Your task to perform on an android device: turn on the 24-hour format for clock Image 0: 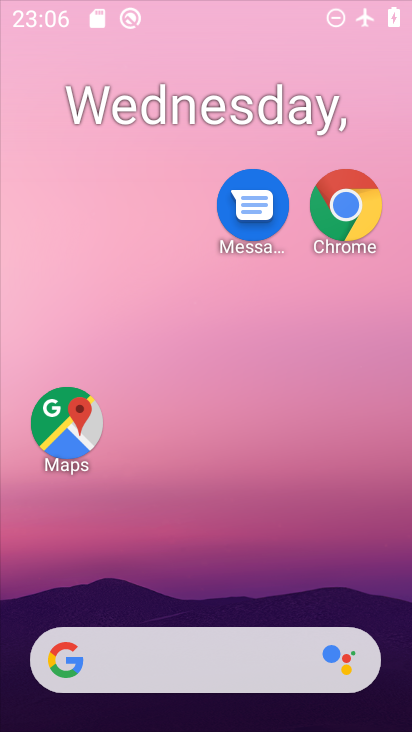
Step 0: click (301, 83)
Your task to perform on an android device: turn on the 24-hour format for clock Image 1: 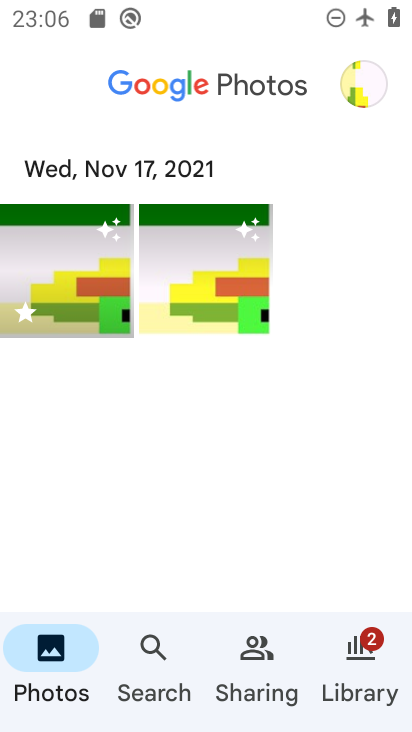
Step 1: press home button
Your task to perform on an android device: turn on the 24-hour format for clock Image 2: 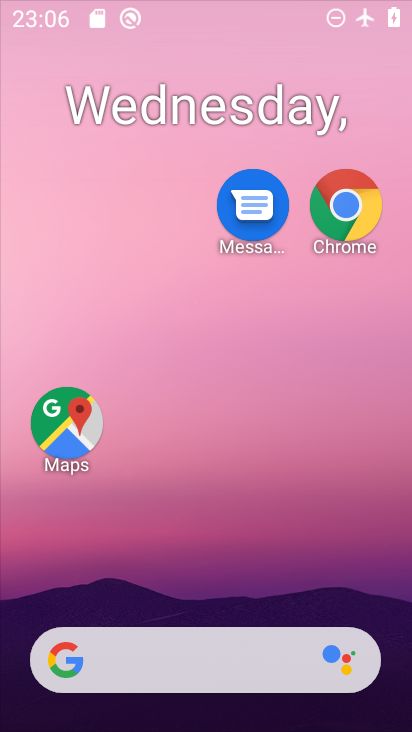
Step 2: drag from (169, 578) to (275, 1)
Your task to perform on an android device: turn on the 24-hour format for clock Image 3: 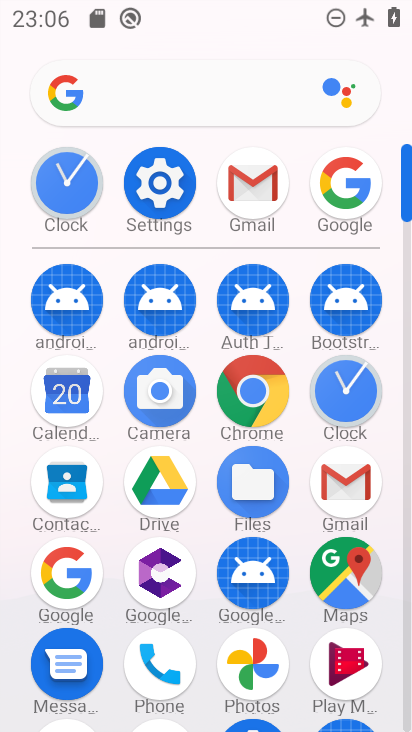
Step 3: click (350, 372)
Your task to perform on an android device: turn on the 24-hour format for clock Image 4: 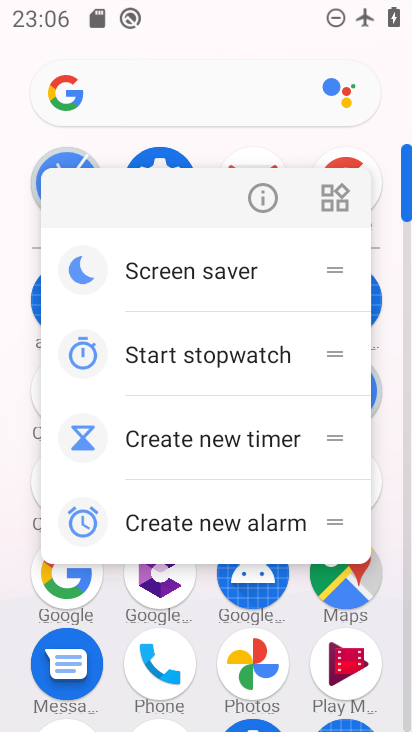
Step 4: click (260, 187)
Your task to perform on an android device: turn on the 24-hour format for clock Image 5: 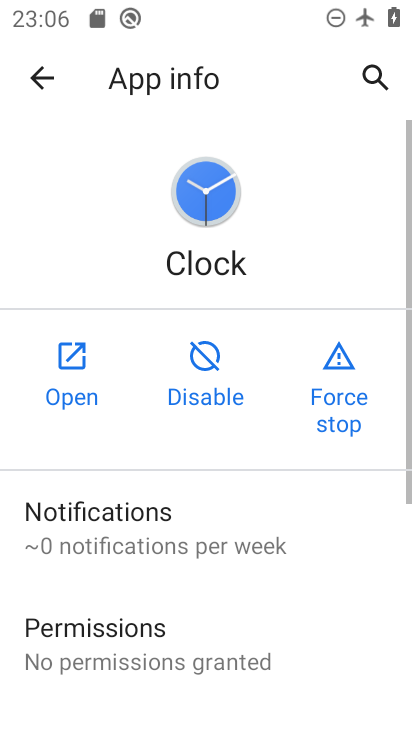
Step 5: click (76, 376)
Your task to perform on an android device: turn on the 24-hour format for clock Image 6: 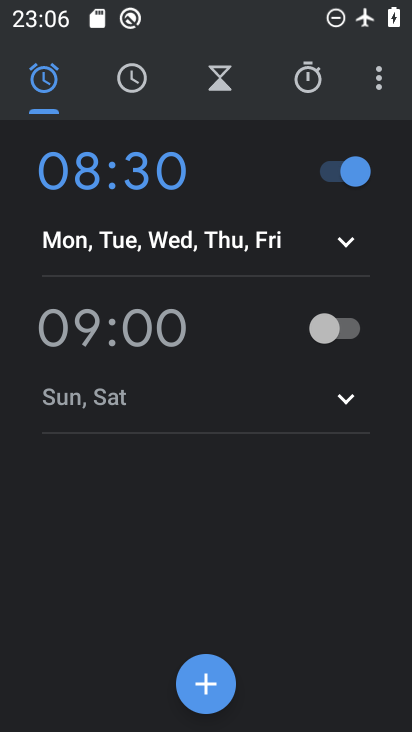
Step 6: click (373, 90)
Your task to perform on an android device: turn on the 24-hour format for clock Image 7: 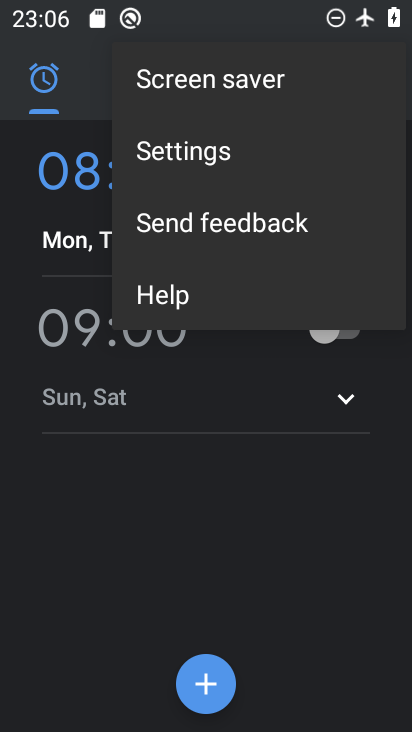
Step 7: click (225, 168)
Your task to perform on an android device: turn on the 24-hour format for clock Image 8: 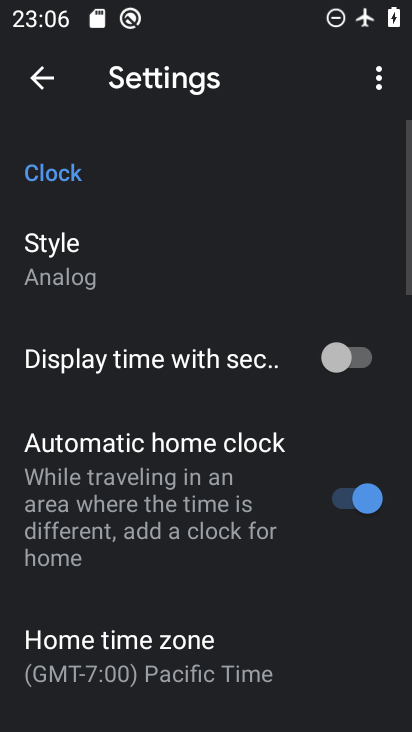
Step 8: drag from (222, 554) to (279, 175)
Your task to perform on an android device: turn on the 24-hour format for clock Image 9: 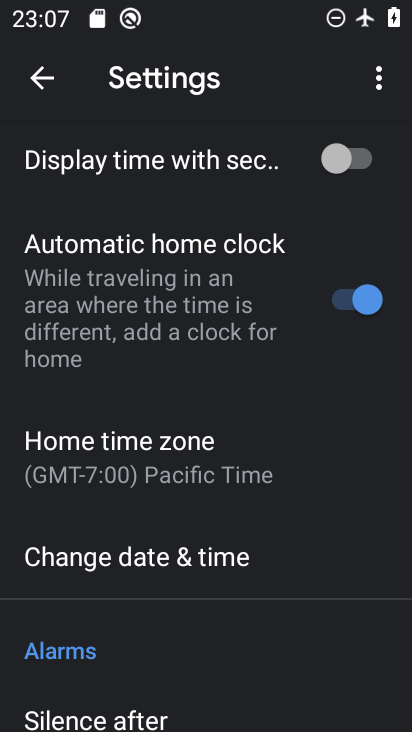
Step 9: click (202, 560)
Your task to perform on an android device: turn on the 24-hour format for clock Image 10: 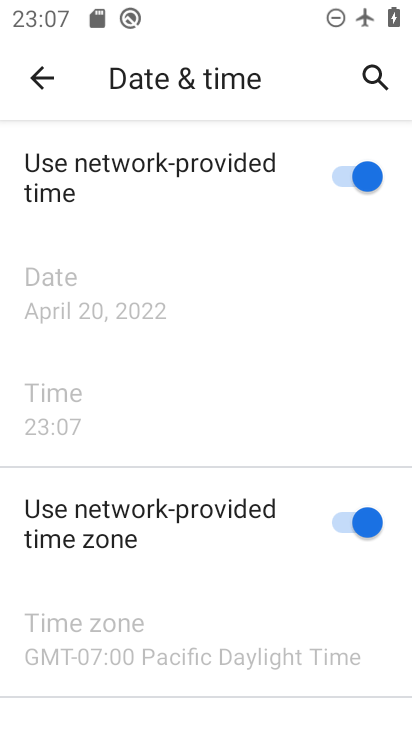
Step 10: click (325, 514)
Your task to perform on an android device: turn on the 24-hour format for clock Image 11: 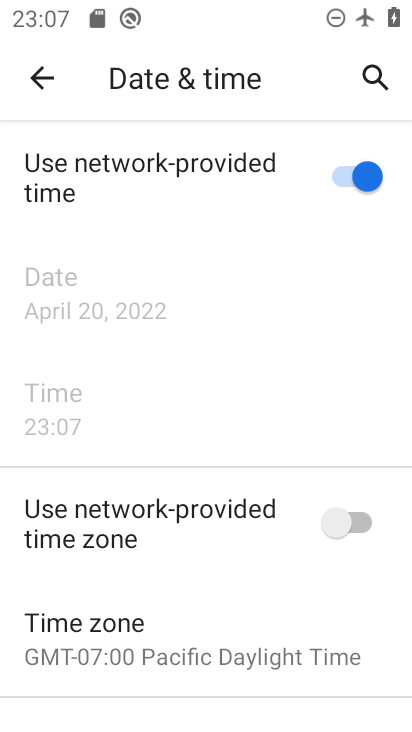
Step 11: click (347, 491)
Your task to perform on an android device: turn on the 24-hour format for clock Image 12: 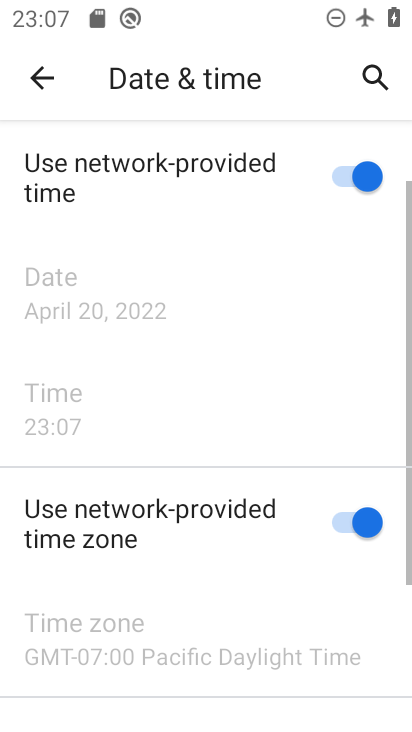
Step 12: task complete